Your task to perform on an android device: change the clock display to show seconds Image 0: 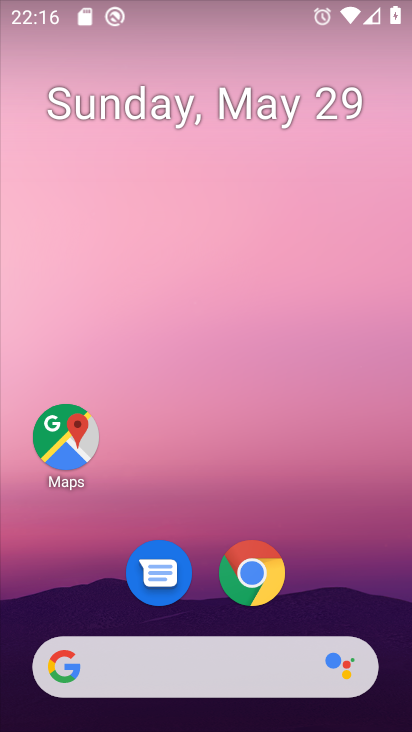
Step 0: drag from (251, 466) to (229, 0)
Your task to perform on an android device: change the clock display to show seconds Image 1: 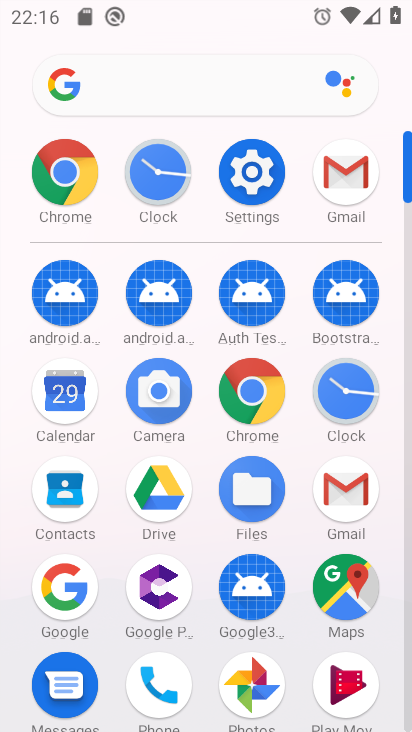
Step 1: click (165, 174)
Your task to perform on an android device: change the clock display to show seconds Image 2: 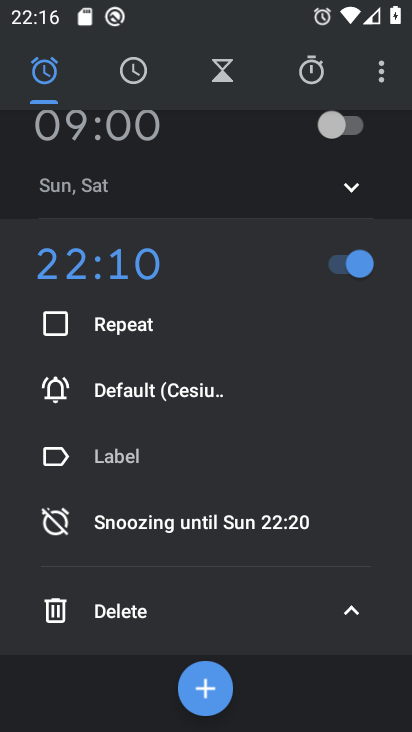
Step 2: click (131, 60)
Your task to perform on an android device: change the clock display to show seconds Image 3: 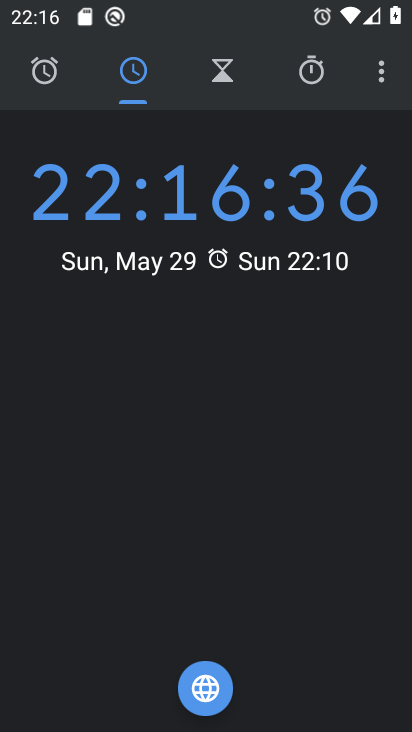
Step 3: task complete